Your task to perform on an android device: Open settings on Google Maps Image 0: 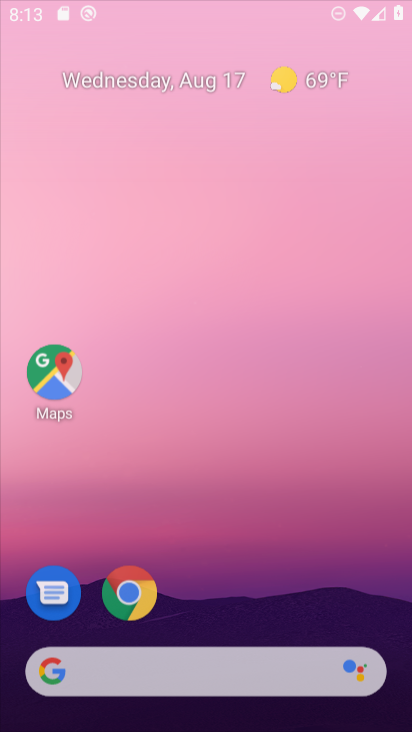
Step 0: press home button
Your task to perform on an android device: Open settings on Google Maps Image 1: 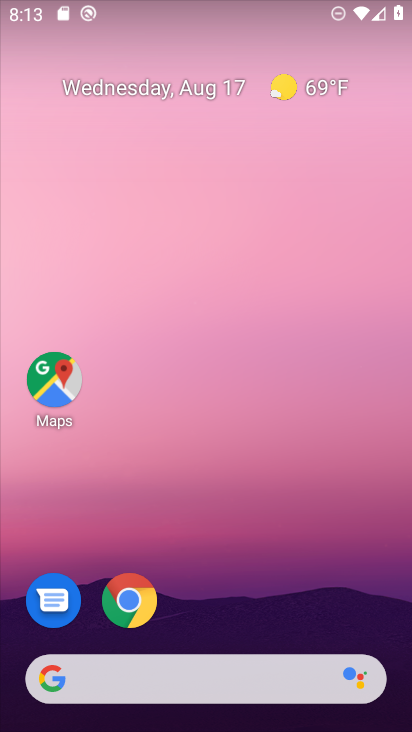
Step 1: click (56, 362)
Your task to perform on an android device: Open settings on Google Maps Image 2: 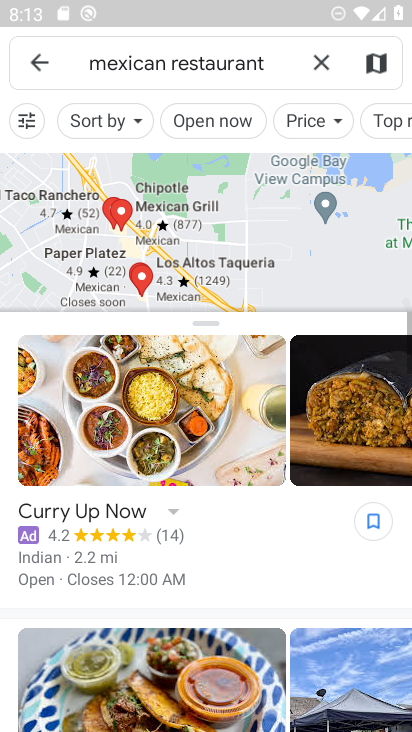
Step 2: click (37, 58)
Your task to perform on an android device: Open settings on Google Maps Image 3: 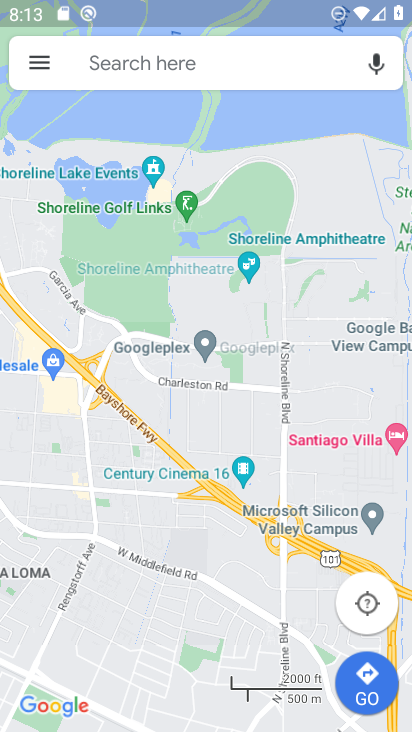
Step 3: click (37, 58)
Your task to perform on an android device: Open settings on Google Maps Image 4: 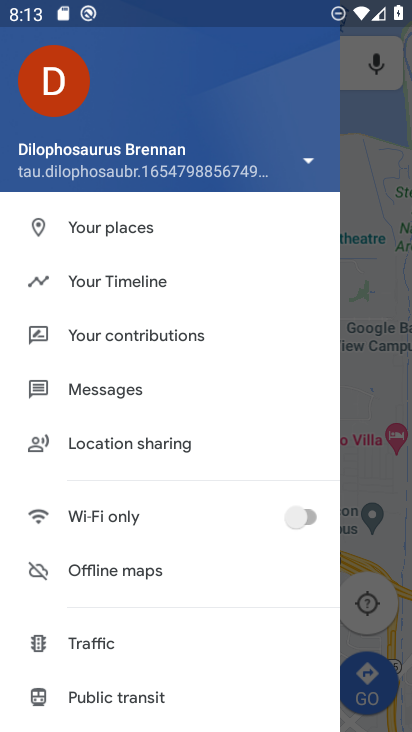
Step 4: drag from (155, 611) to (181, 160)
Your task to perform on an android device: Open settings on Google Maps Image 5: 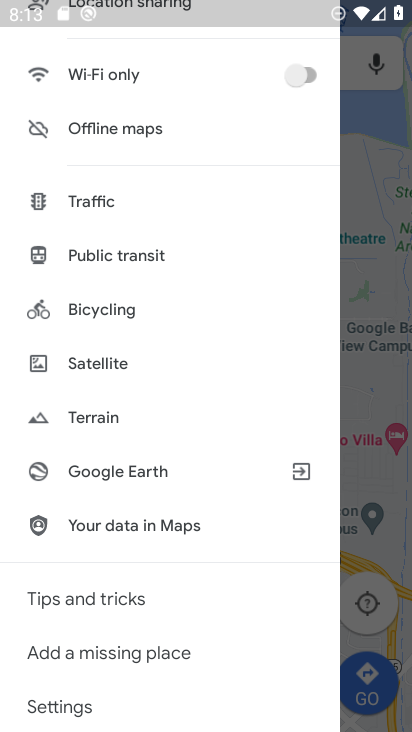
Step 5: click (78, 707)
Your task to perform on an android device: Open settings on Google Maps Image 6: 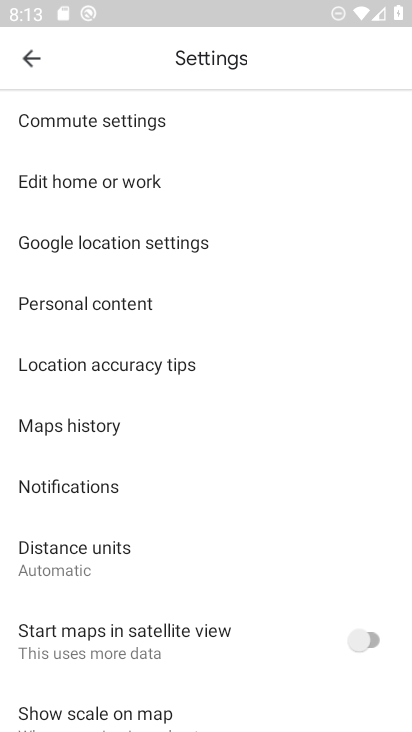
Step 6: task complete